Your task to perform on an android device: toggle notification dots Image 0: 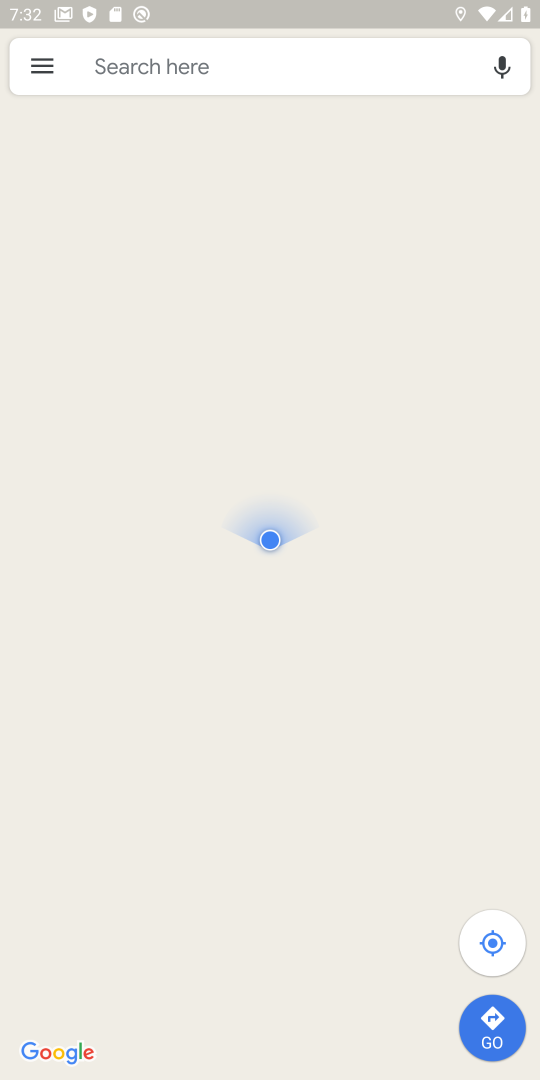
Step 0: press home button
Your task to perform on an android device: toggle notification dots Image 1: 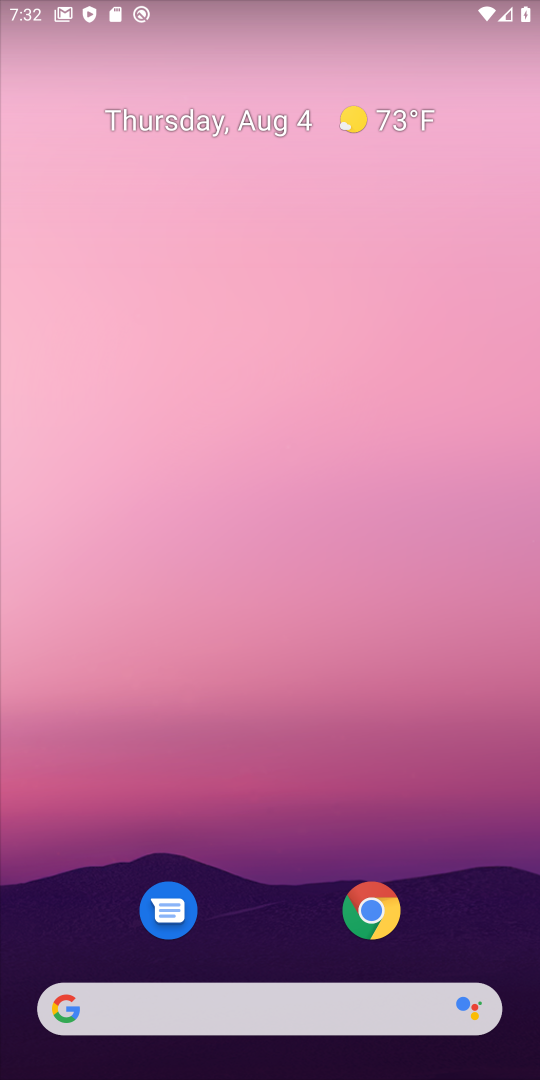
Step 1: drag from (279, 810) to (276, 253)
Your task to perform on an android device: toggle notification dots Image 2: 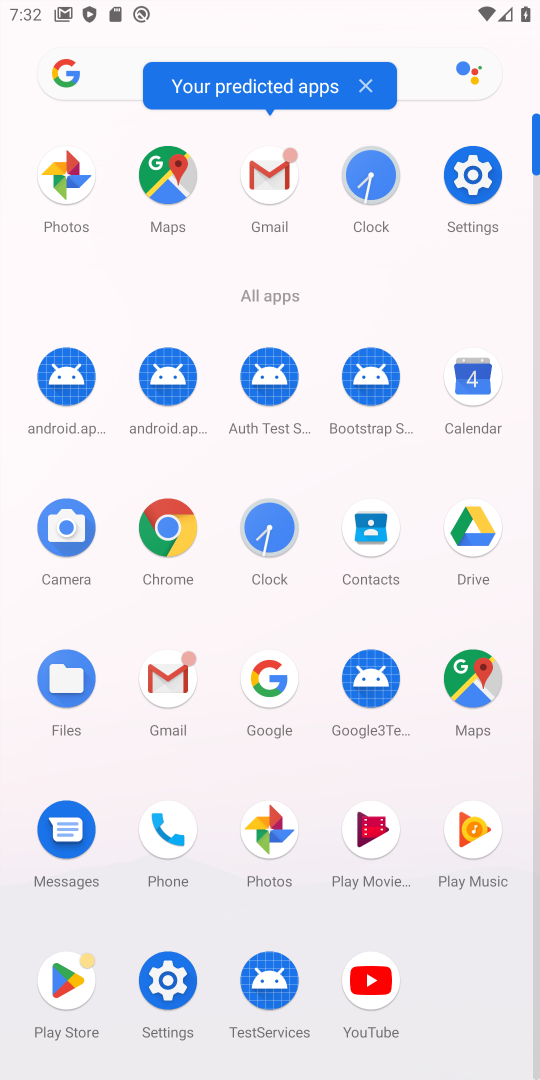
Step 2: click (475, 181)
Your task to perform on an android device: toggle notification dots Image 3: 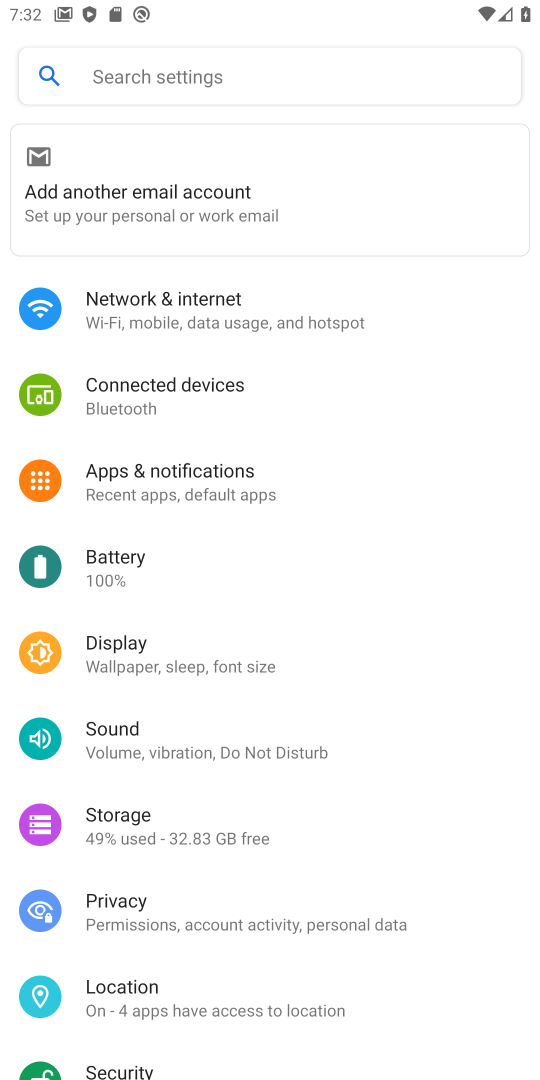
Step 3: click (199, 467)
Your task to perform on an android device: toggle notification dots Image 4: 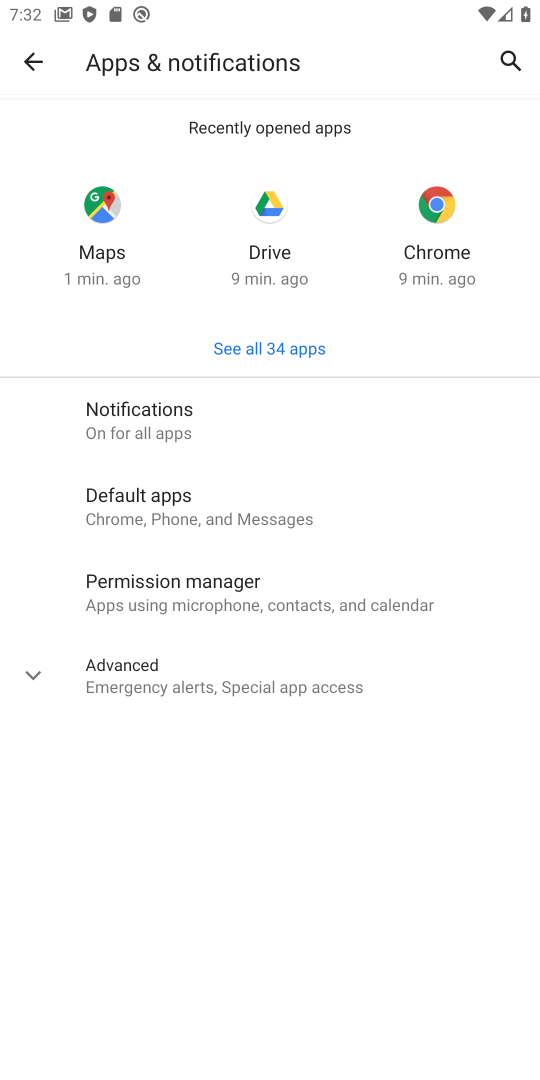
Step 4: click (174, 416)
Your task to perform on an android device: toggle notification dots Image 5: 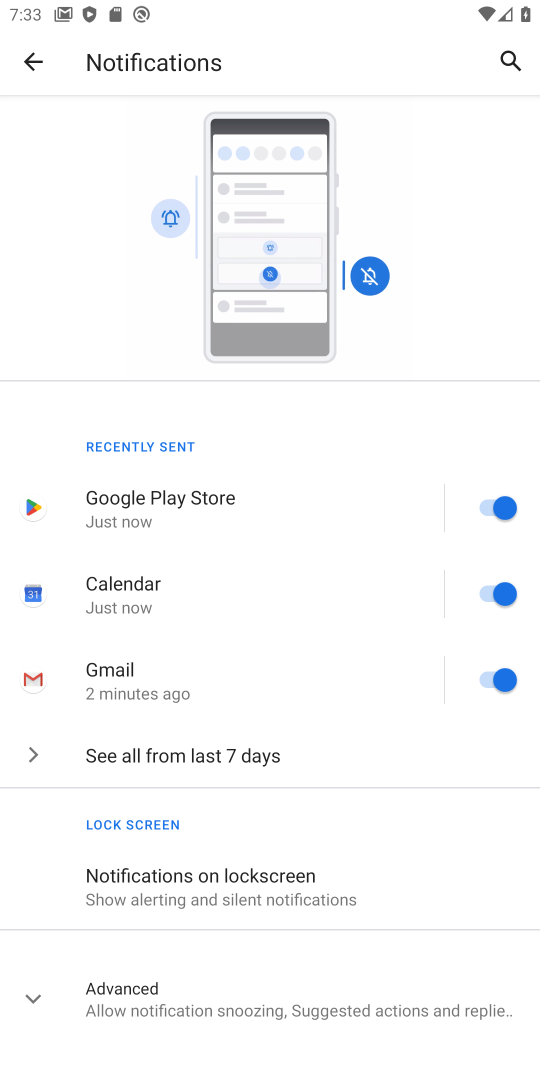
Step 5: drag from (210, 914) to (314, 476)
Your task to perform on an android device: toggle notification dots Image 6: 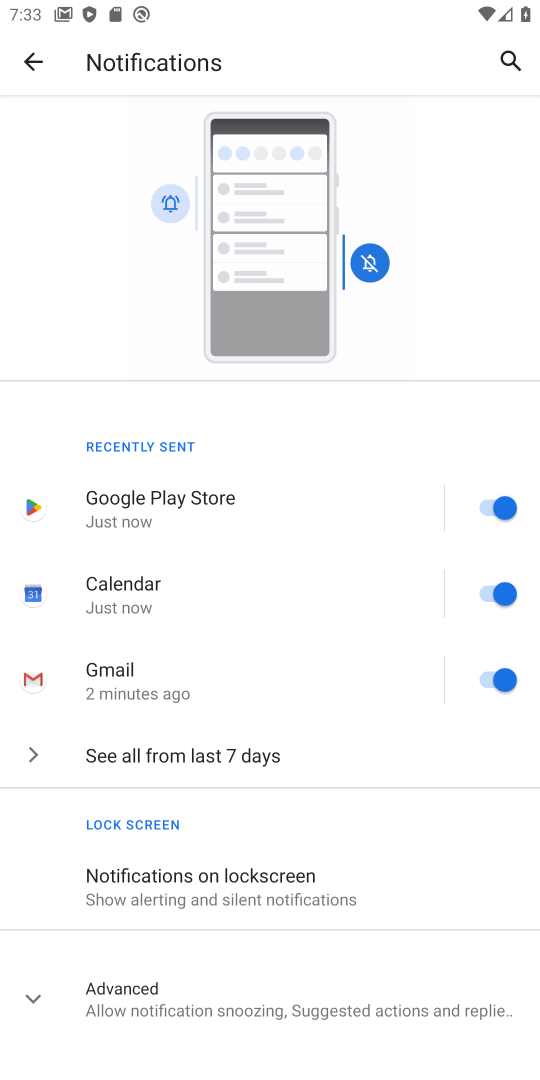
Step 6: click (150, 991)
Your task to perform on an android device: toggle notification dots Image 7: 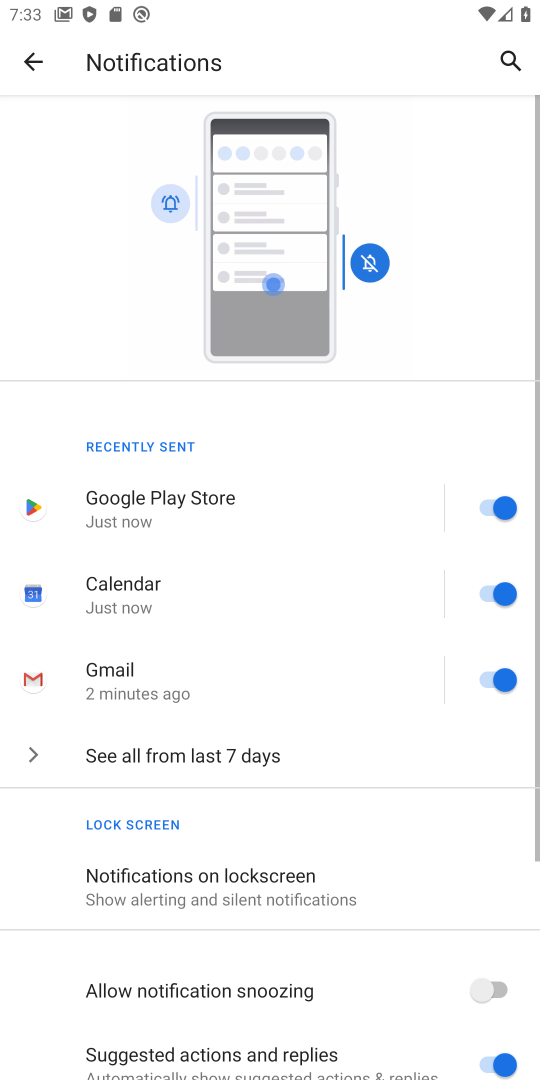
Step 7: drag from (213, 897) to (290, 530)
Your task to perform on an android device: toggle notification dots Image 8: 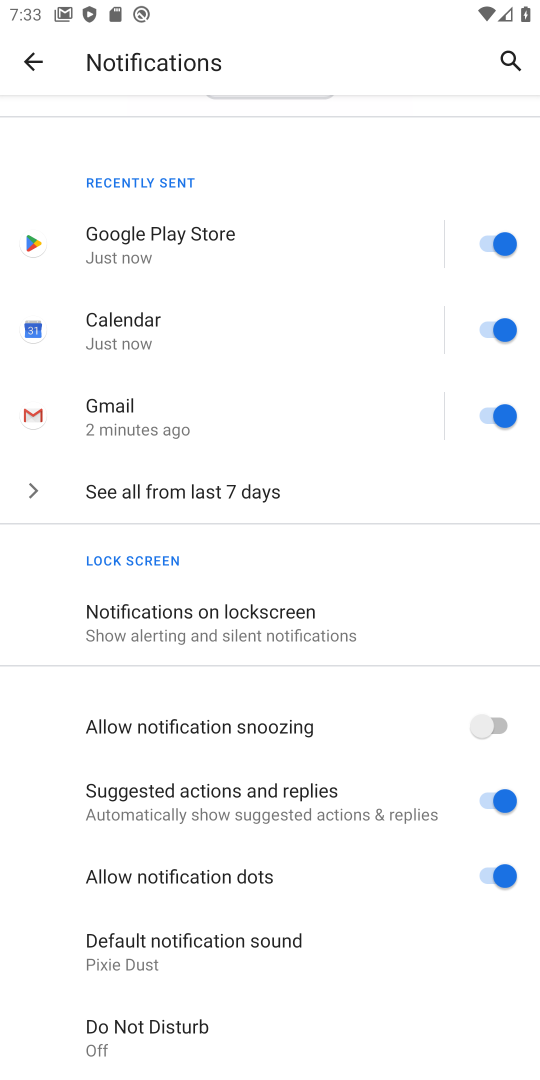
Step 8: click (505, 890)
Your task to perform on an android device: toggle notification dots Image 9: 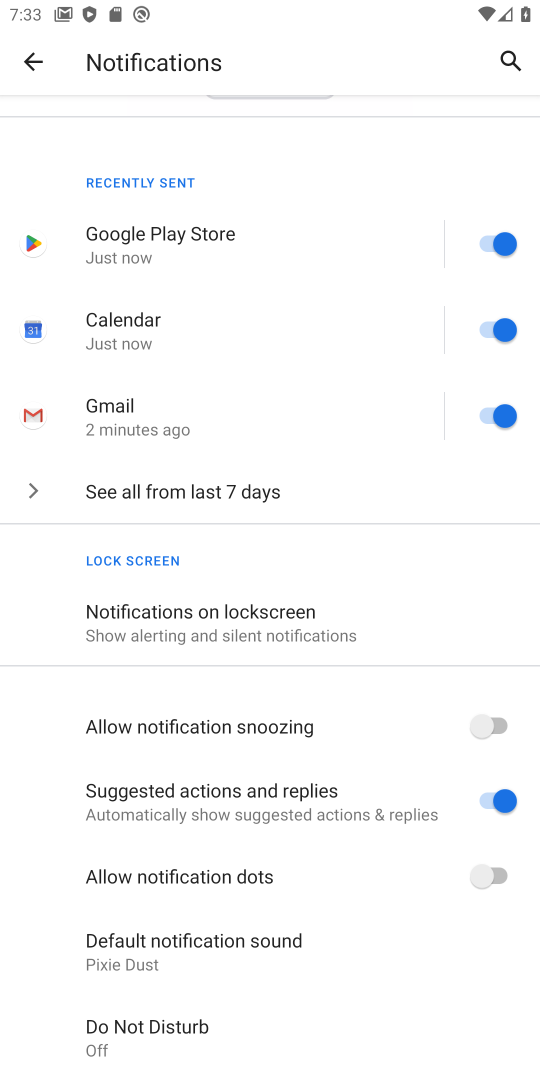
Step 9: task complete